Your task to perform on an android device: Open the stopwatch Image 0: 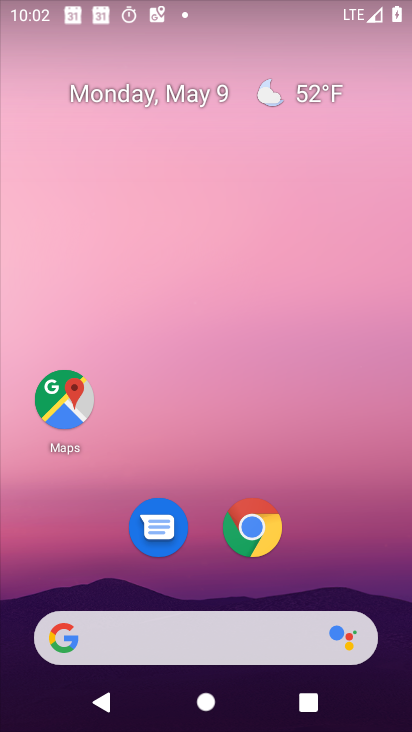
Step 0: drag from (348, 503) to (348, 151)
Your task to perform on an android device: Open the stopwatch Image 1: 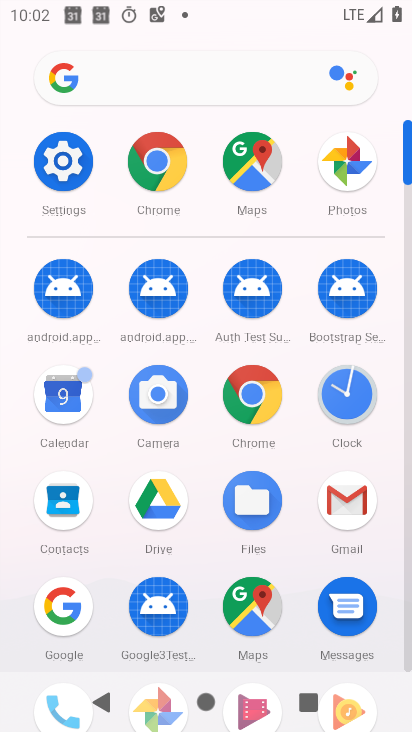
Step 1: click (344, 406)
Your task to perform on an android device: Open the stopwatch Image 2: 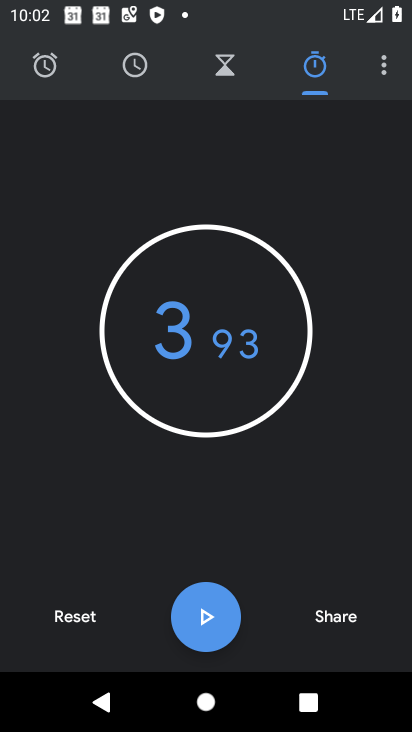
Step 2: task complete